Your task to perform on an android device: toggle notification dots Image 0: 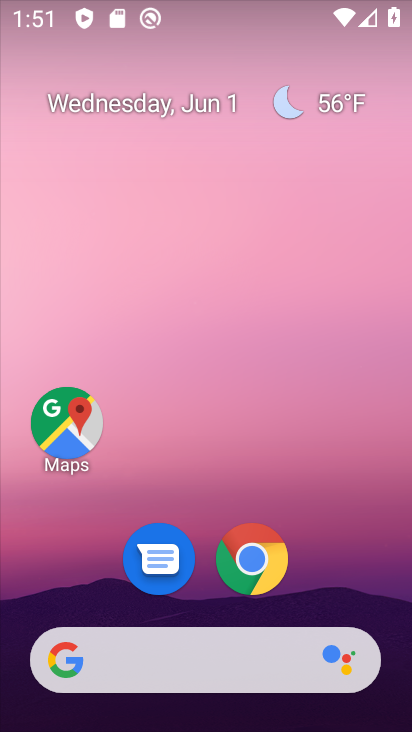
Step 0: click (220, 221)
Your task to perform on an android device: toggle notification dots Image 1: 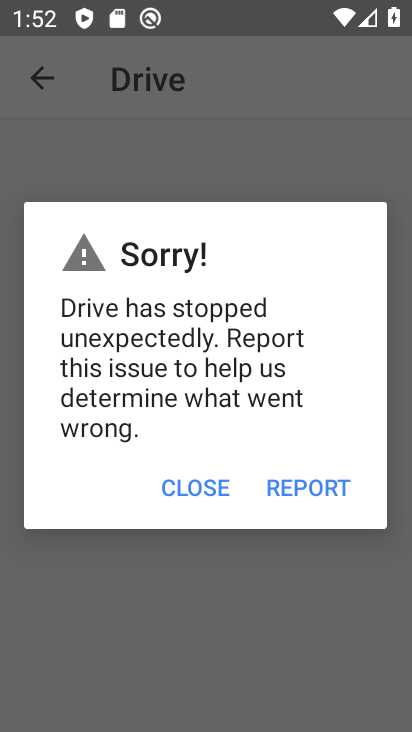
Step 1: press home button
Your task to perform on an android device: toggle notification dots Image 2: 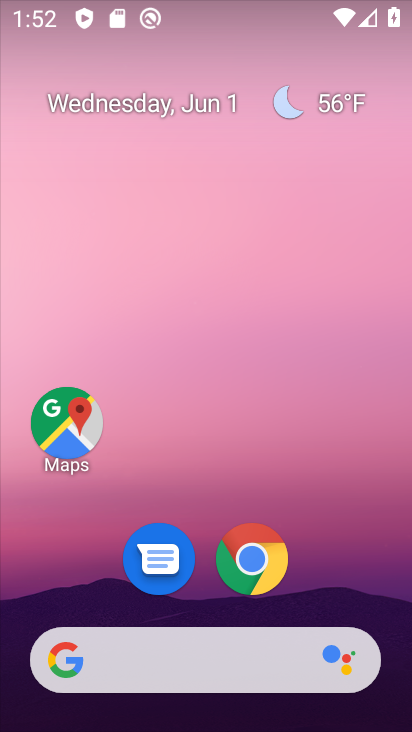
Step 2: drag from (325, 572) to (242, 105)
Your task to perform on an android device: toggle notification dots Image 3: 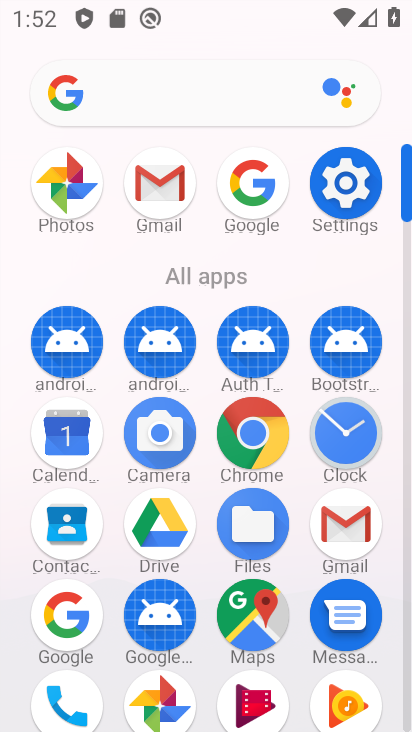
Step 3: click (345, 179)
Your task to perform on an android device: toggle notification dots Image 4: 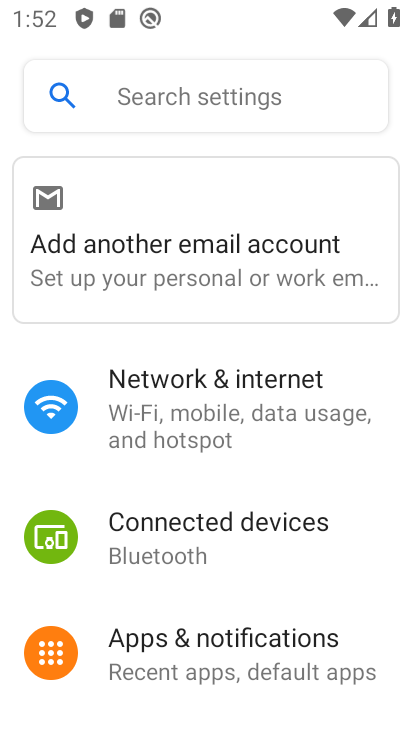
Step 4: drag from (158, 485) to (200, 336)
Your task to perform on an android device: toggle notification dots Image 5: 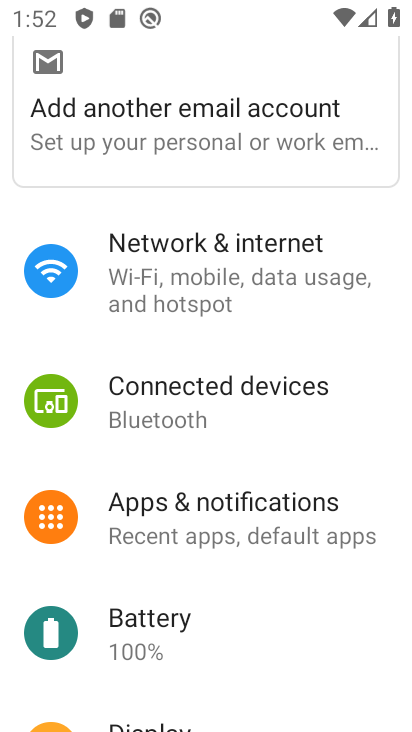
Step 5: click (215, 518)
Your task to perform on an android device: toggle notification dots Image 6: 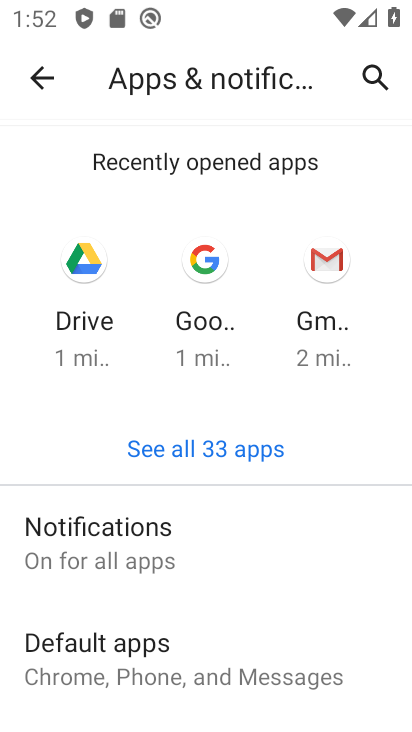
Step 6: click (108, 542)
Your task to perform on an android device: toggle notification dots Image 7: 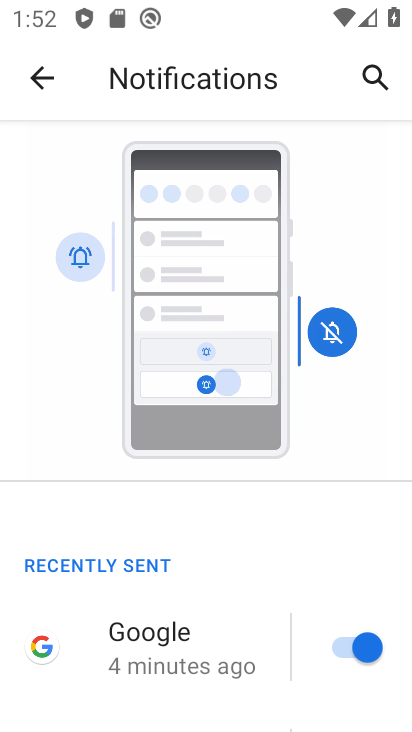
Step 7: drag from (202, 558) to (218, 336)
Your task to perform on an android device: toggle notification dots Image 8: 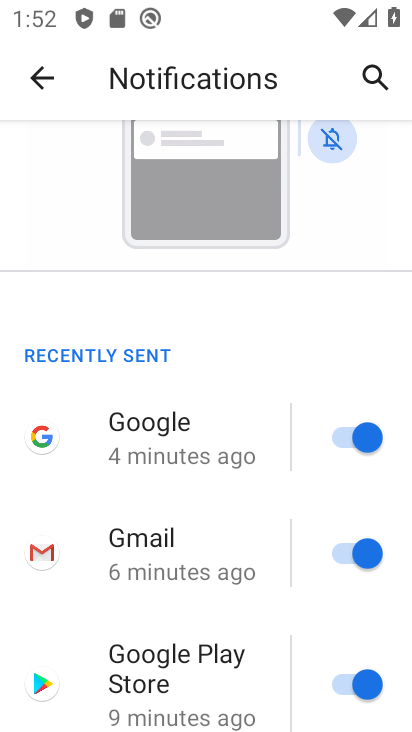
Step 8: drag from (190, 519) to (205, 341)
Your task to perform on an android device: toggle notification dots Image 9: 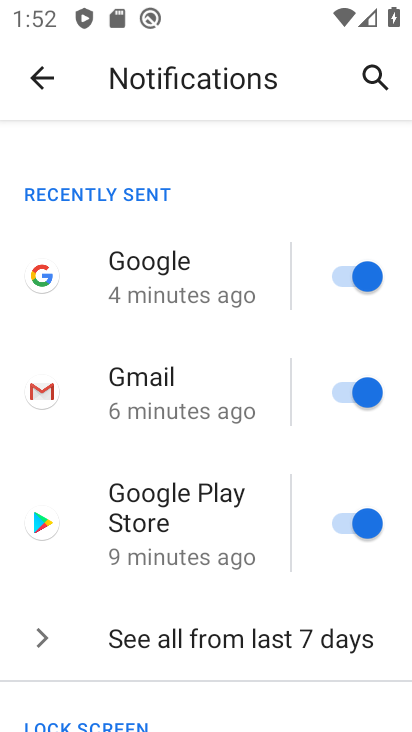
Step 9: drag from (160, 468) to (195, 285)
Your task to perform on an android device: toggle notification dots Image 10: 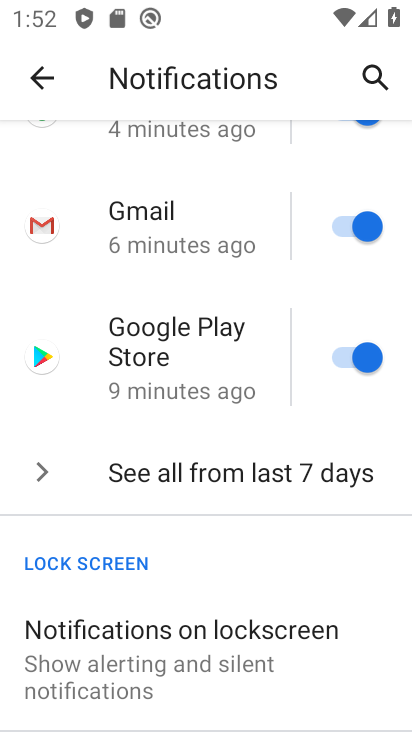
Step 10: drag from (196, 451) to (192, 268)
Your task to perform on an android device: toggle notification dots Image 11: 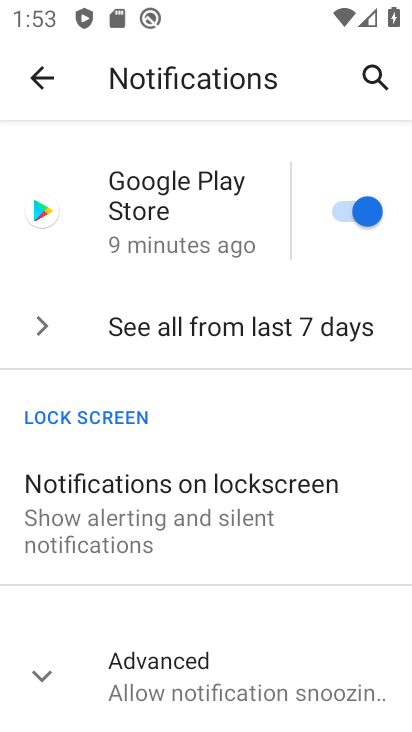
Step 11: click (207, 685)
Your task to perform on an android device: toggle notification dots Image 12: 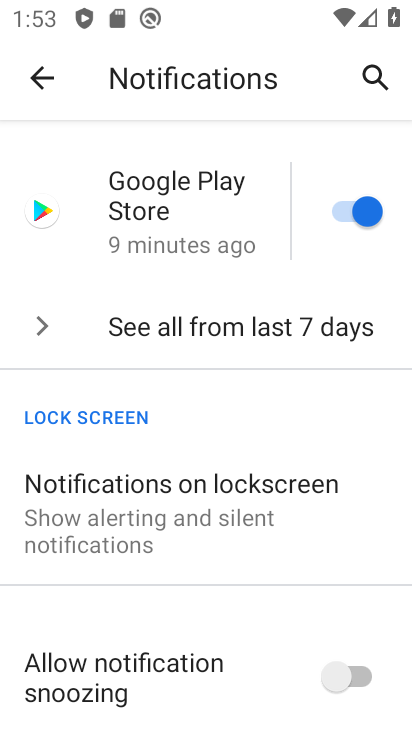
Step 12: drag from (204, 614) to (249, 456)
Your task to perform on an android device: toggle notification dots Image 13: 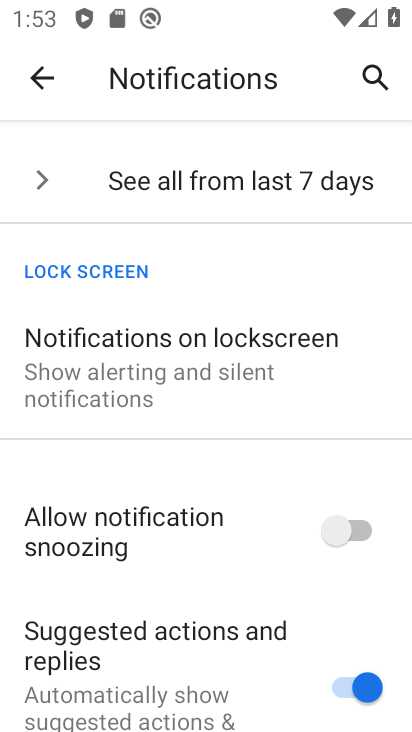
Step 13: drag from (166, 587) to (159, 387)
Your task to perform on an android device: toggle notification dots Image 14: 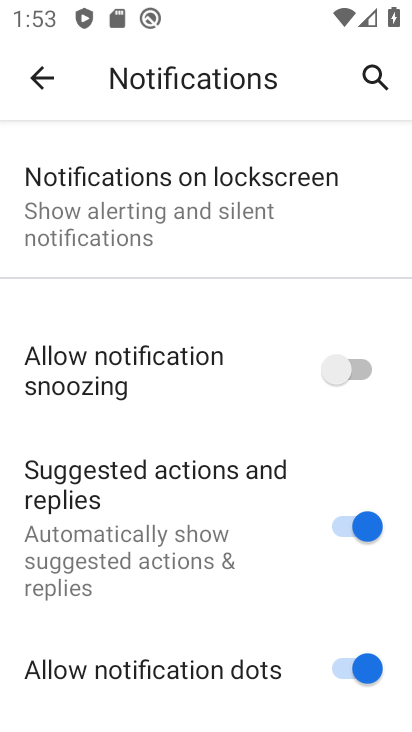
Step 14: drag from (136, 621) to (157, 442)
Your task to perform on an android device: toggle notification dots Image 15: 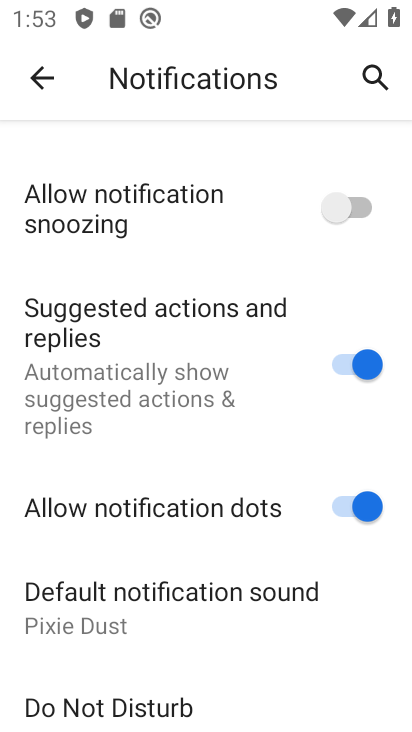
Step 15: click (361, 508)
Your task to perform on an android device: toggle notification dots Image 16: 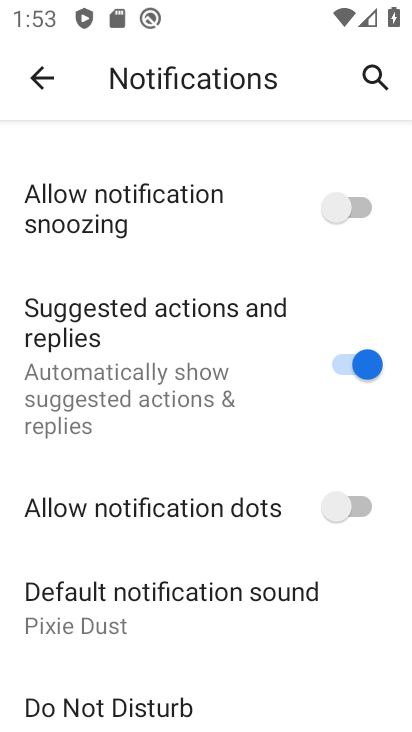
Step 16: task complete